Your task to perform on an android device: Go to Yahoo.com Image 0: 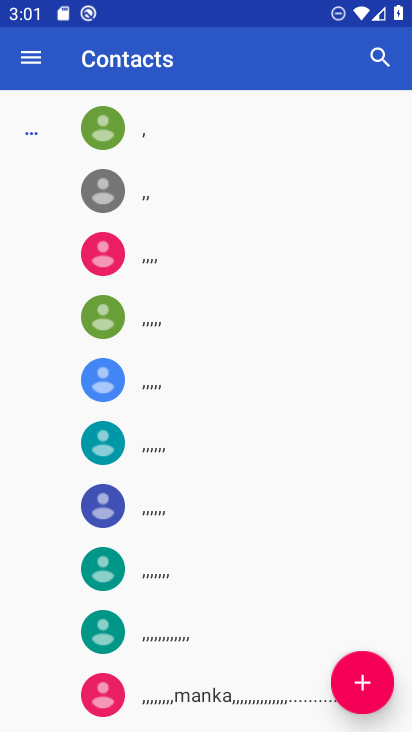
Step 0: press home button
Your task to perform on an android device: Go to Yahoo.com Image 1: 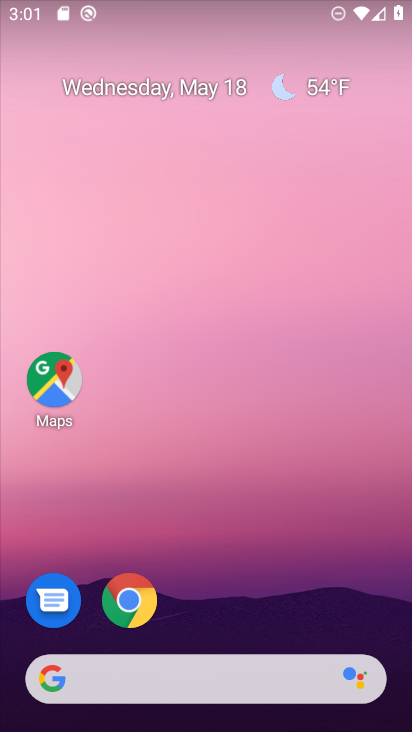
Step 1: click (138, 611)
Your task to perform on an android device: Go to Yahoo.com Image 2: 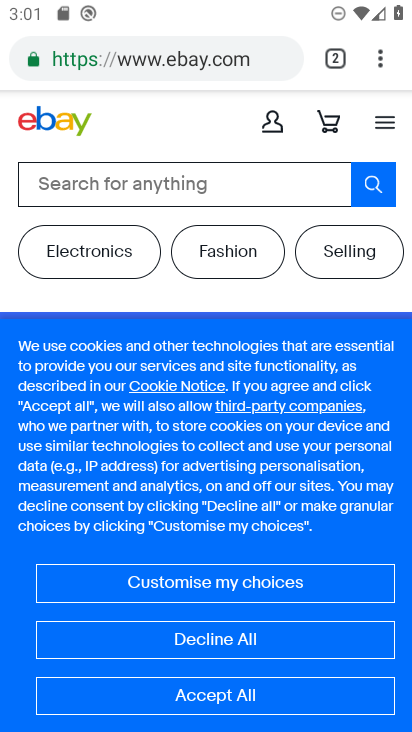
Step 2: click (223, 52)
Your task to perform on an android device: Go to Yahoo.com Image 3: 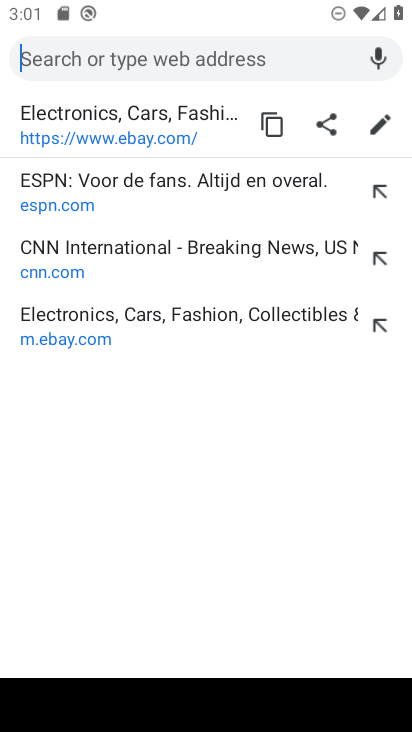
Step 3: type "yahoo.com"
Your task to perform on an android device: Go to Yahoo.com Image 4: 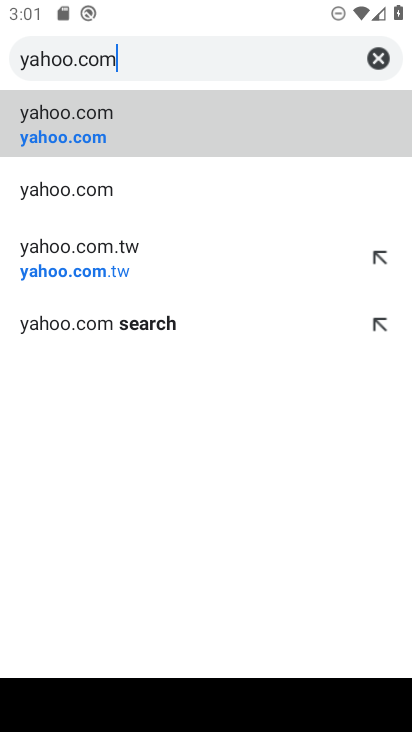
Step 4: click (108, 128)
Your task to perform on an android device: Go to Yahoo.com Image 5: 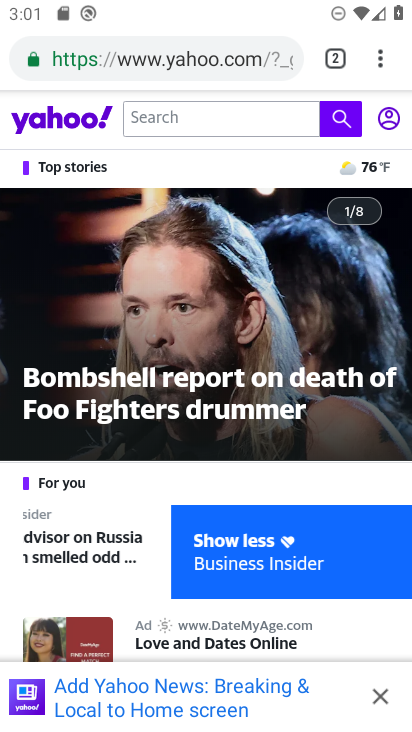
Step 5: task complete